Your task to perform on an android device: Open the calendar and show me this week's events? Image 0: 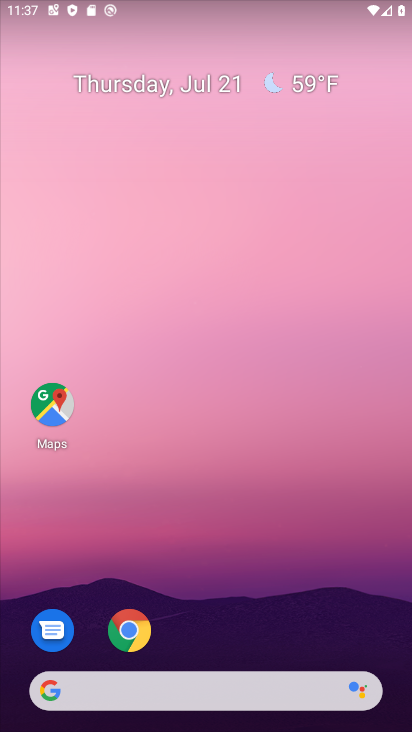
Step 0: drag from (166, 668) to (166, 310)
Your task to perform on an android device: Open the calendar and show me this week's events? Image 1: 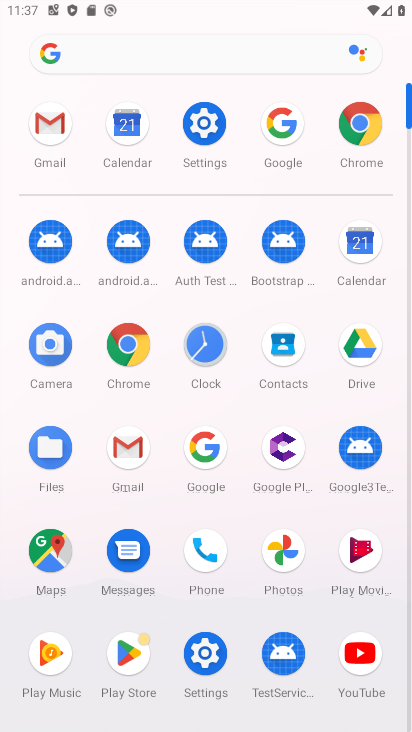
Step 1: click (355, 245)
Your task to perform on an android device: Open the calendar and show me this week's events? Image 2: 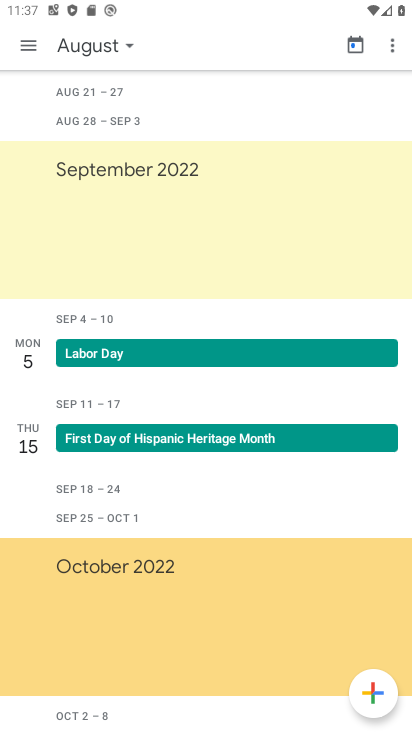
Step 2: click (87, 45)
Your task to perform on an android device: Open the calendar and show me this week's events? Image 3: 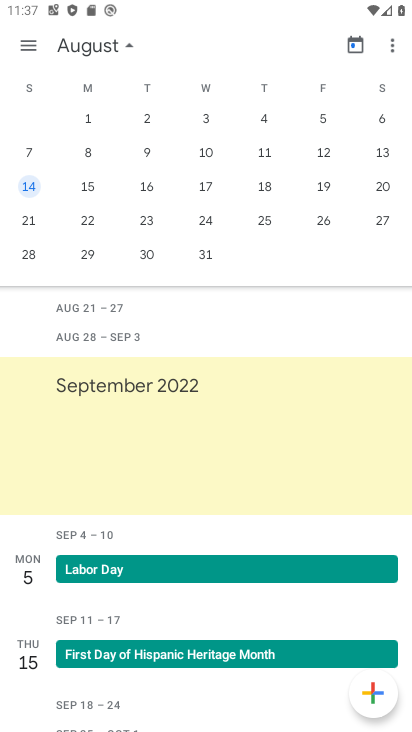
Step 3: drag from (22, 165) to (411, 135)
Your task to perform on an android device: Open the calendar and show me this week's events? Image 4: 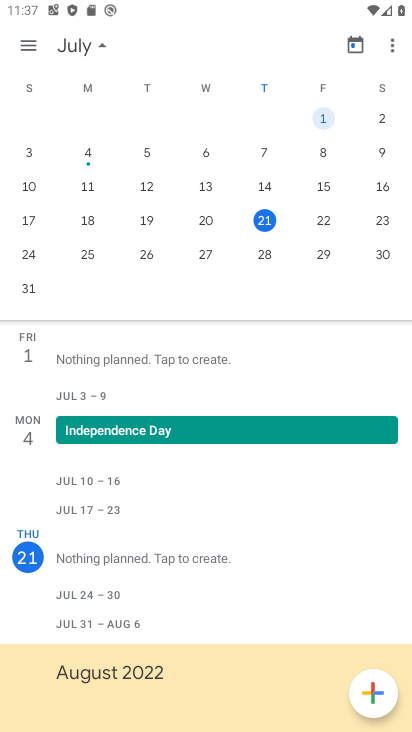
Step 4: click (32, 213)
Your task to perform on an android device: Open the calendar and show me this week's events? Image 5: 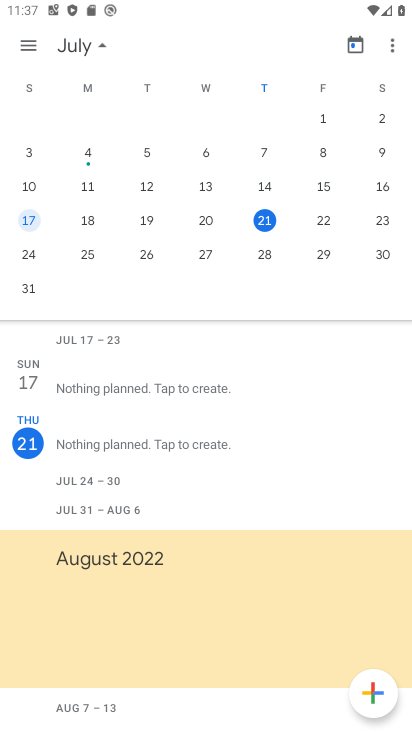
Step 5: click (268, 221)
Your task to perform on an android device: Open the calendar and show me this week's events? Image 6: 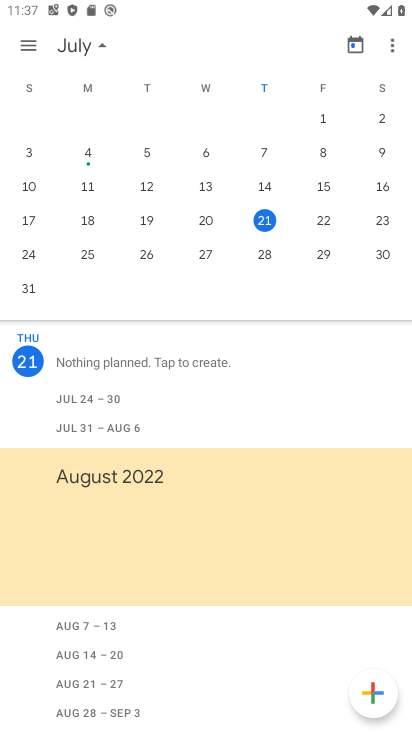
Step 6: task complete